Your task to perform on an android device: make emails show in primary in the gmail app Image 0: 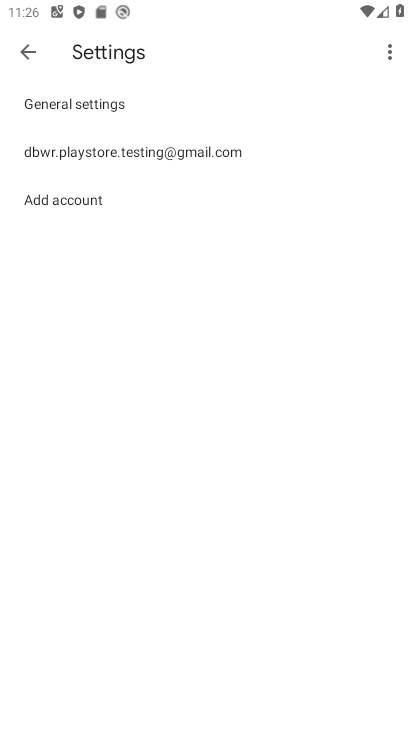
Step 0: press home button
Your task to perform on an android device: make emails show in primary in the gmail app Image 1: 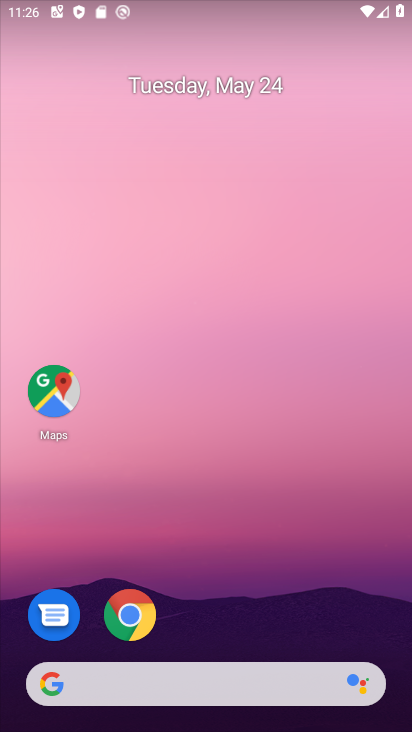
Step 1: drag from (215, 478) to (209, 111)
Your task to perform on an android device: make emails show in primary in the gmail app Image 2: 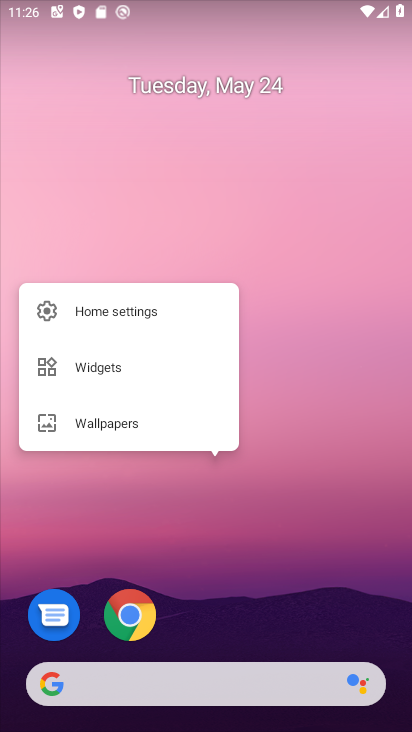
Step 2: drag from (177, 550) to (192, 184)
Your task to perform on an android device: make emails show in primary in the gmail app Image 3: 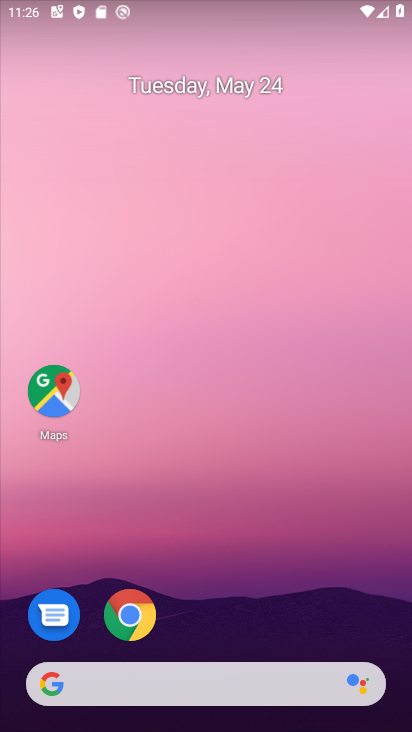
Step 3: drag from (245, 279) to (306, 86)
Your task to perform on an android device: make emails show in primary in the gmail app Image 4: 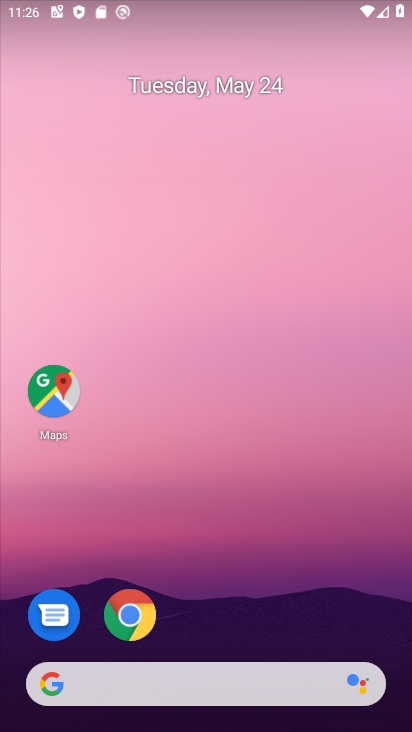
Step 4: drag from (205, 599) to (296, 18)
Your task to perform on an android device: make emails show in primary in the gmail app Image 5: 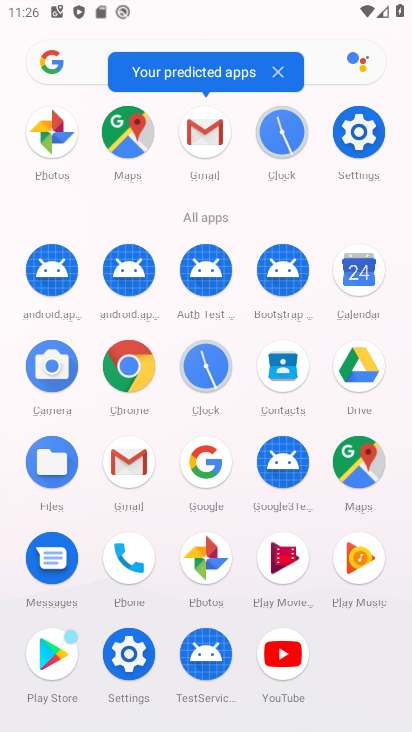
Step 5: click (138, 467)
Your task to perform on an android device: make emails show in primary in the gmail app Image 6: 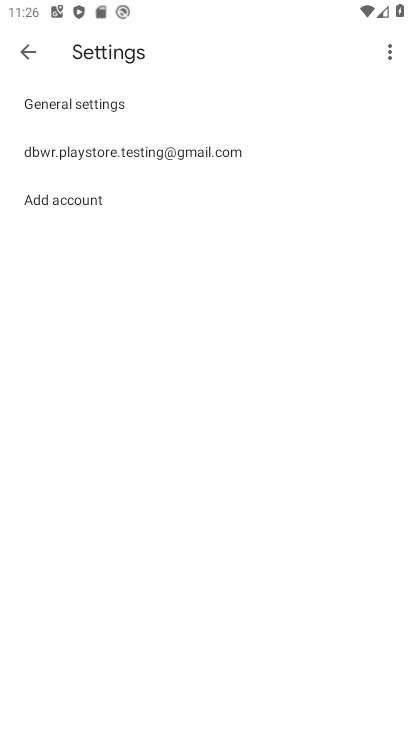
Step 6: click (158, 151)
Your task to perform on an android device: make emails show in primary in the gmail app Image 7: 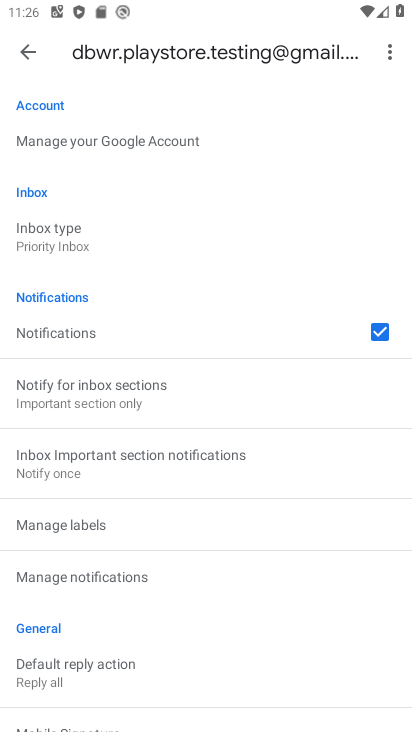
Step 7: task complete